Your task to perform on an android device: find snoozed emails in the gmail app Image 0: 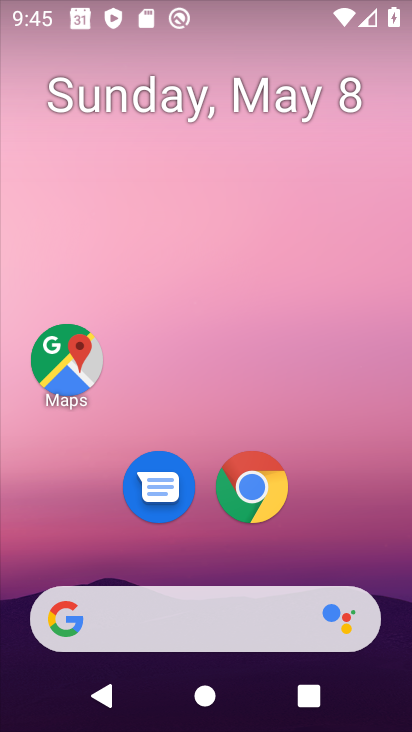
Step 0: drag from (338, 514) to (335, 169)
Your task to perform on an android device: find snoozed emails in the gmail app Image 1: 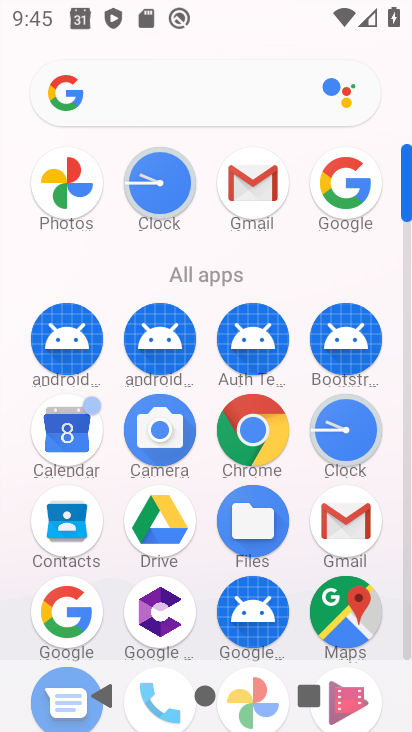
Step 1: click (262, 196)
Your task to perform on an android device: find snoozed emails in the gmail app Image 2: 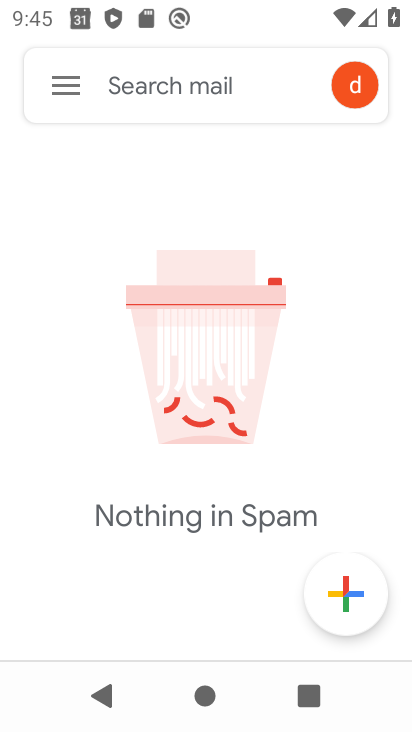
Step 2: click (73, 93)
Your task to perform on an android device: find snoozed emails in the gmail app Image 3: 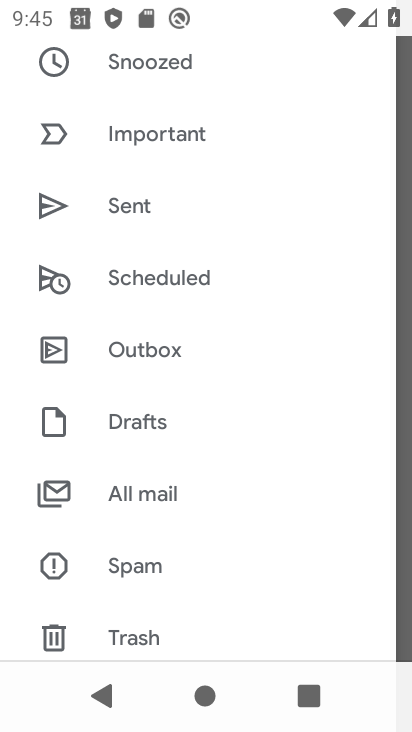
Step 3: click (180, 70)
Your task to perform on an android device: find snoozed emails in the gmail app Image 4: 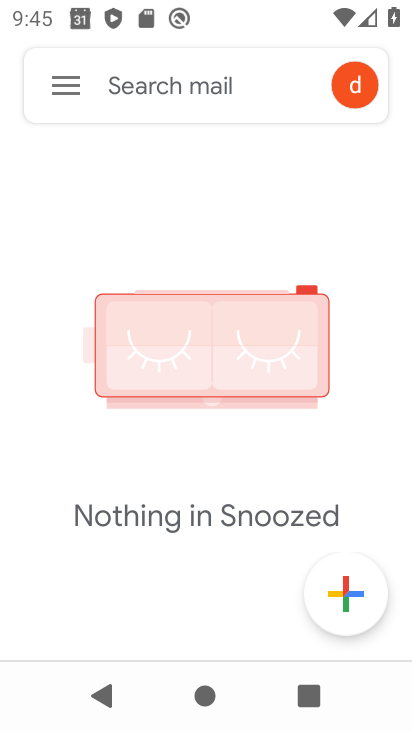
Step 4: task complete